Your task to perform on an android device: open a new tab in the chrome app Image 0: 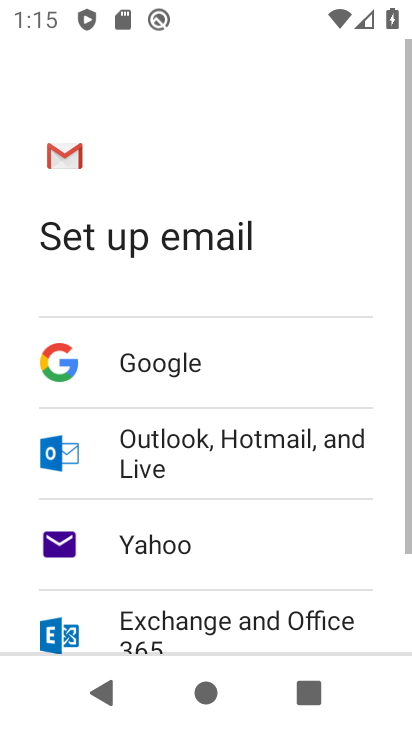
Step 0: press home button
Your task to perform on an android device: open a new tab in the chrome app Image 1: 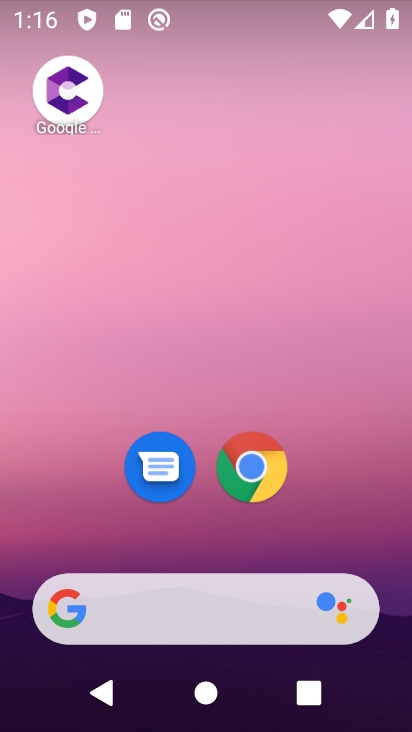
Step 1: drag from (386, 524) to (77, 495)
Your task to perform on an android device: open a new tab in the chrome app Image 2: 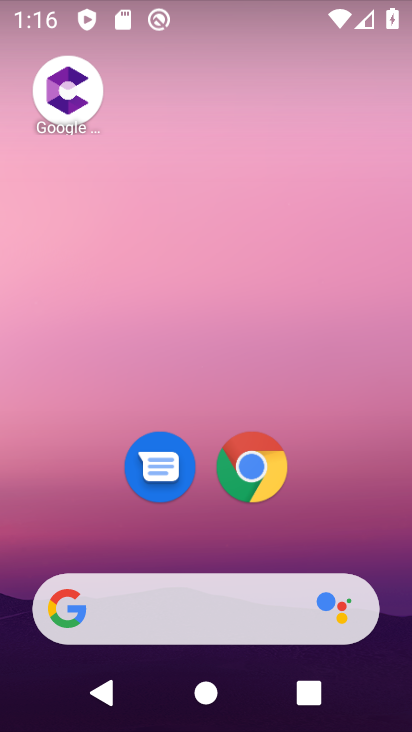
Step 2: drag from (354, 474) to (226, 40)
Your task to perform on an android device: open a new tab in the chrome app Image 3: 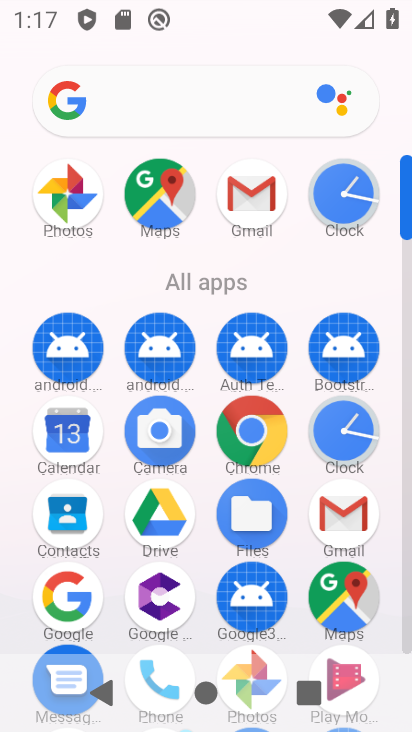
Step 3: click (260, 438)
Your task to perform on an android device: open a new tab in the chrome app Image 4: 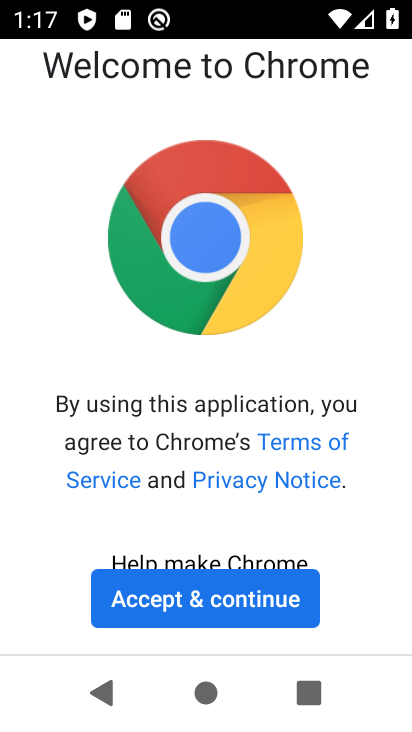
Step 4: click (164, 600)
Your task to perform on an android device: open a new tab in the chrome app Image 5: 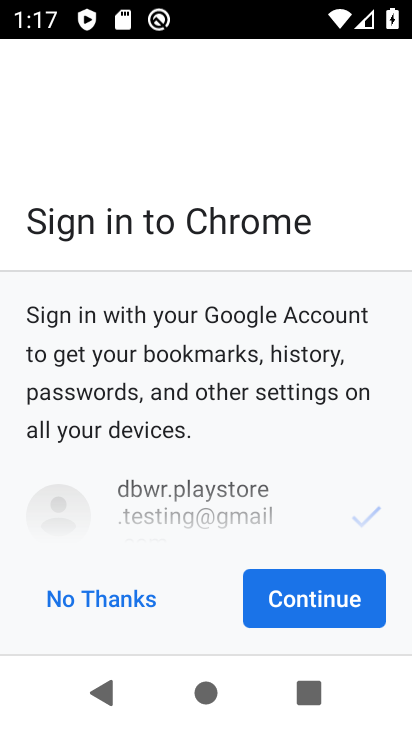
Step 5: click (304, 594)
Your task to perform on an android device: open a new tab in the chrome app Image 6: 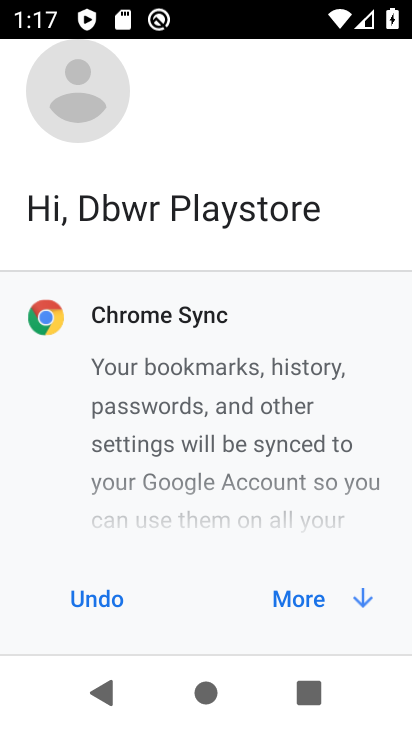
Step 6: click (291, 606)
Your task to perform on an android device: open a new tab in the chrome app Image 7: 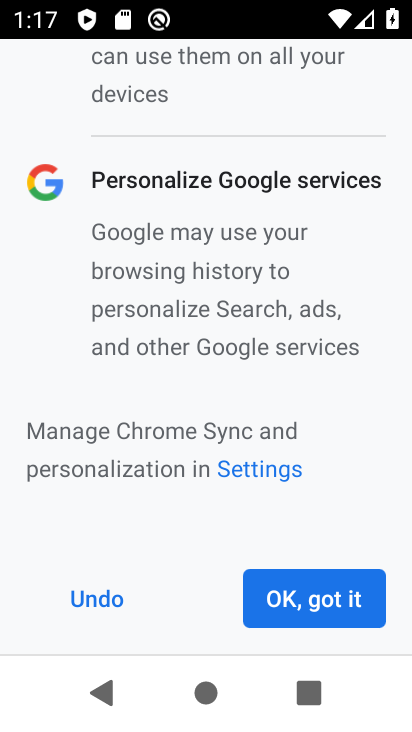
Step 7: click (291, 606)
Your task to perform on an android device: open a new tab in the chrome app Image 8: 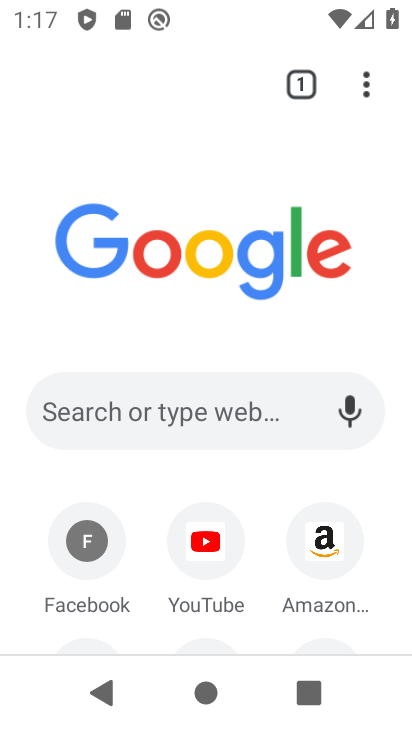
Step 8: click (362, 88)
Your task to perform on an android device: open a new tab in the chrome app Image 9: 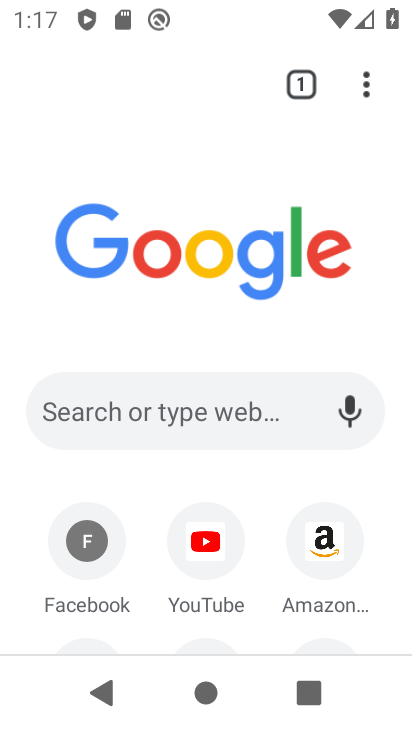
Step 9: task complete